Your task to perform on an android device: turn off smart reply in the gmail app Image 0: 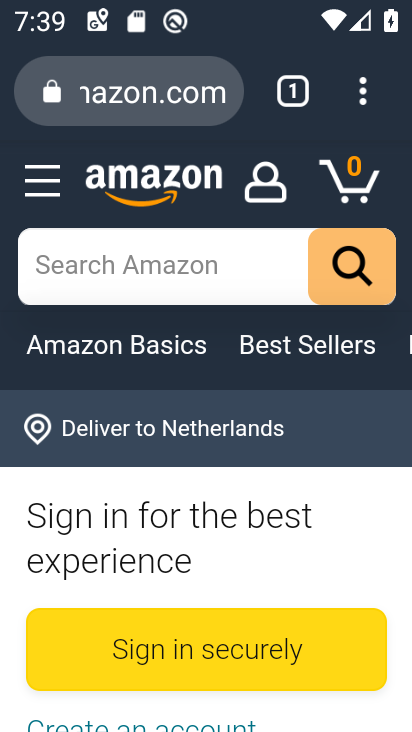
Step 0: press back button
Your task to perform on an android device: turn off smart reply in the gmail app Image 1: 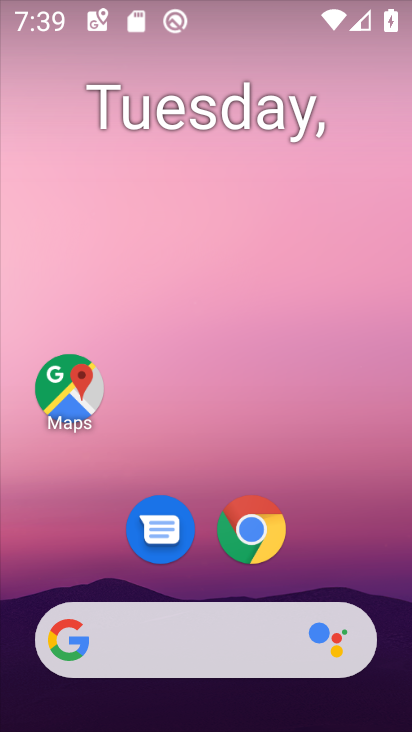
Step 1: drag from (177, 421) to (219, 36)
Your task to perform on an android device: turn off smart reply in the gmail app Image 2: 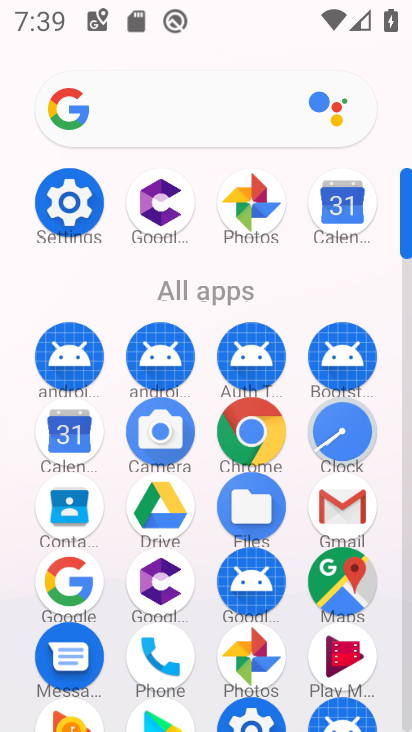
Step 2: click (354, 504)
Your task to perform on an android device: turn off smart reply in the gmail app Image 3: 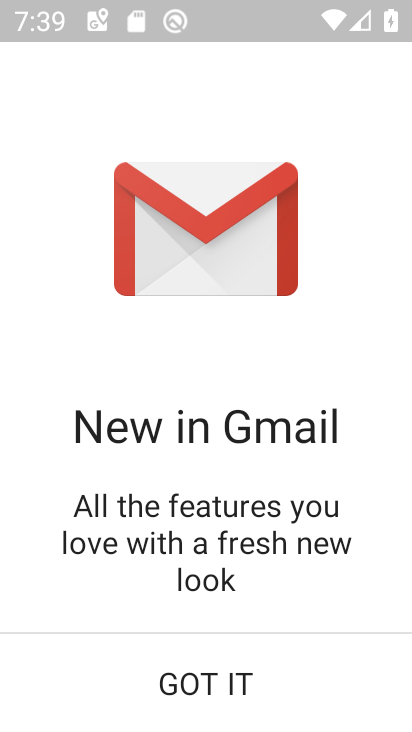
Step 3: click (180, 689)
Your task to perform on an android device: turn off smart reply in the gmail app Image 4: 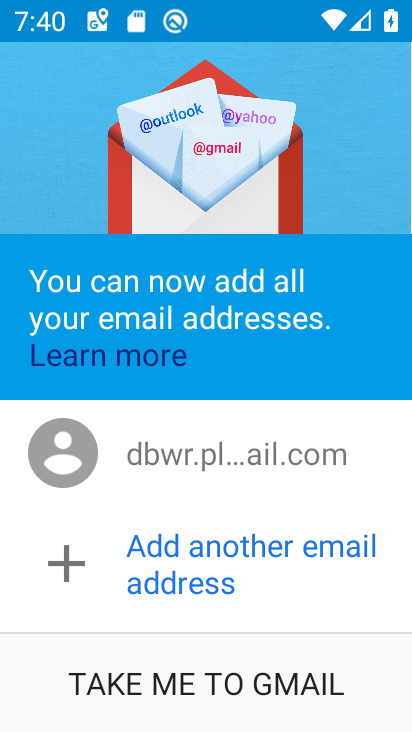
Step 4: click (198, 679)
Your task to perform on an android device: turn off smart reply in the gmail app Image 5: 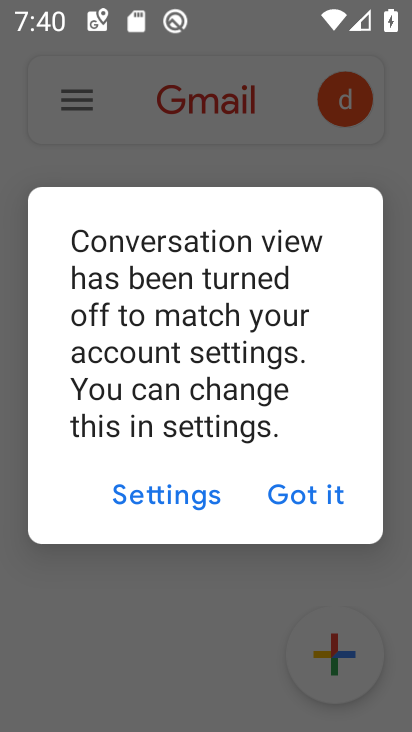
Step 5: click (330, 496)
Your task to perform on an android device: turn off smart reply in the gmail app Image 6: 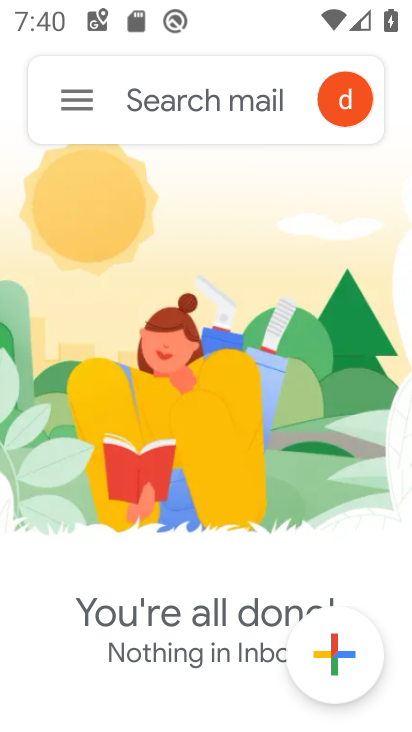
Step 6: click (72, 108)
Your task to perform on an android device: turn off smart reply in the gmail app Image 7: 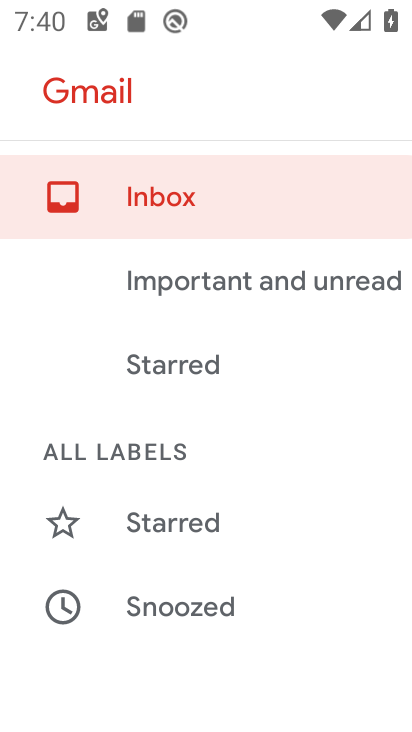
Step 7: drag from (178, 620) to (285, 56)
Your task to perform on an android device: turn off smart reply in the gmail app Image 8: 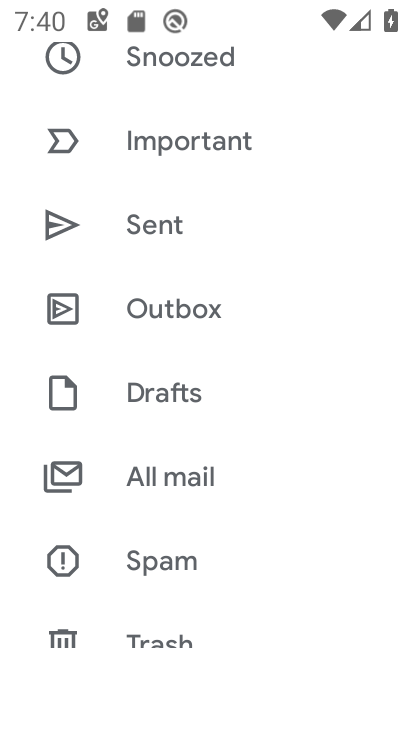
Step 8: drag from (176, 563) to (229, 192)
Your task to perform on an android device: turn off smart reply in the gmail app Image 9: 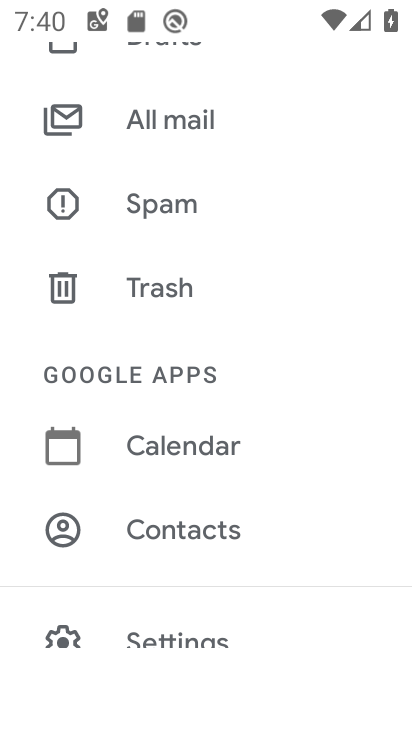
Step 9: click (176, 631)
Your task to perform on an android device: turn off smart reply in the gmail app Image 10: 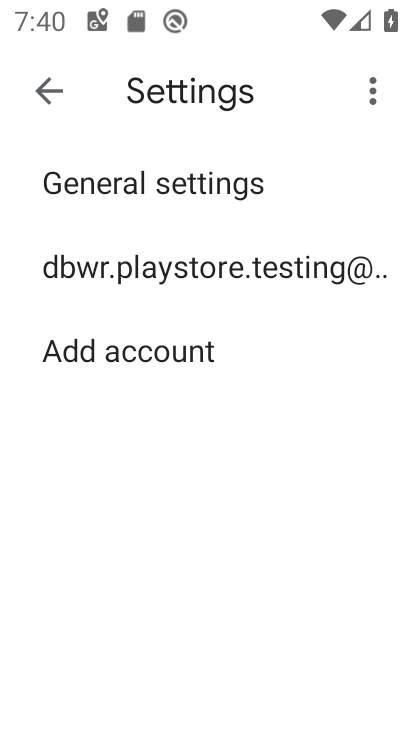
Step 10: click (149, 258)
Your task to perform on an android device: turn off smart reply in the gmail app Image 11: 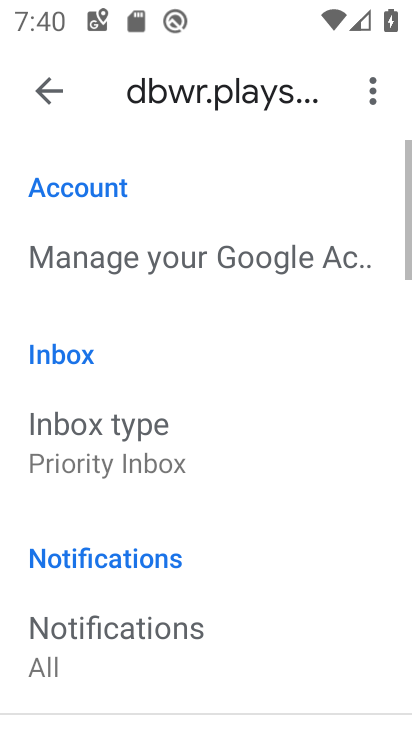
Step 11: drag from (127, 613) to (309, 77)
Your task to perform on an android device: turn off smart reply in the gmail app Image 12: 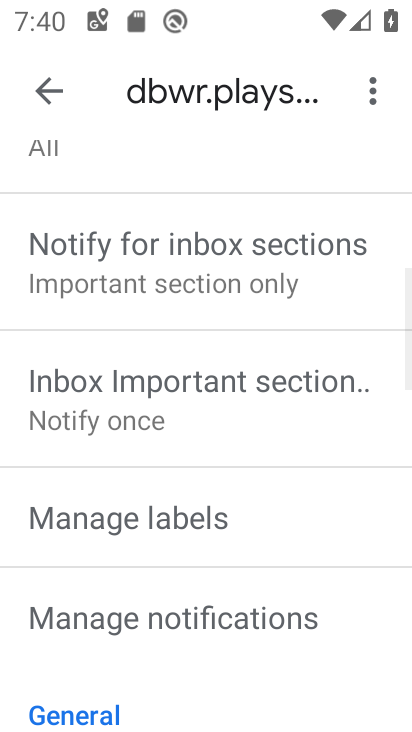
Step 12: drag from (222, 629) to (284, 117)
Your task to perform on an android device: turn off smart reply in the gmail app Image 13: 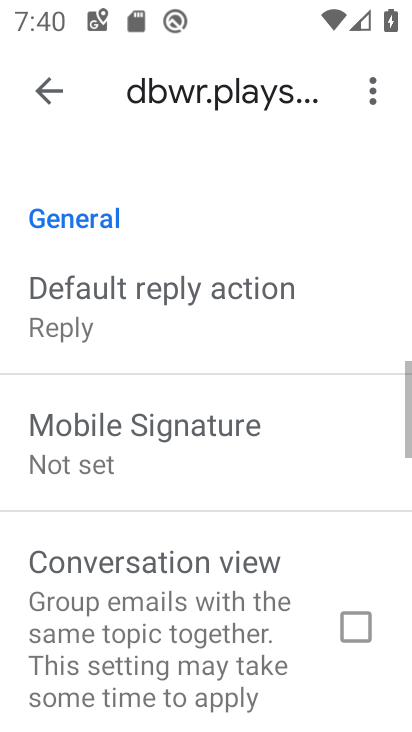
Step 13: drag from (133, 666) to (196, 177)
Your task to perform on an android device: turn off smart reply in the gmail app Image 14: 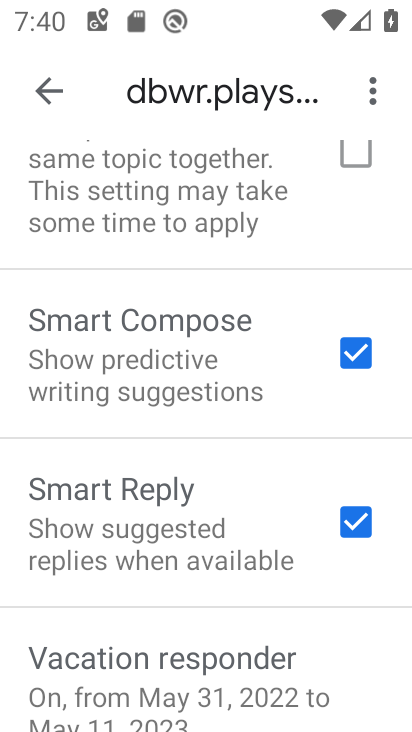
Step 14: click (354, 521)
Your task to perform on an android device: turn off smart reply in the gmail app Image 15: 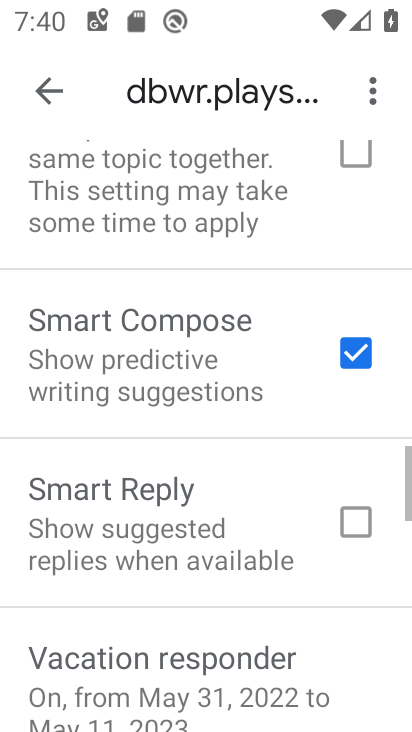
Step 15: task complete